Your task to perform on an android device: see creations saved in the google photos Image 0: 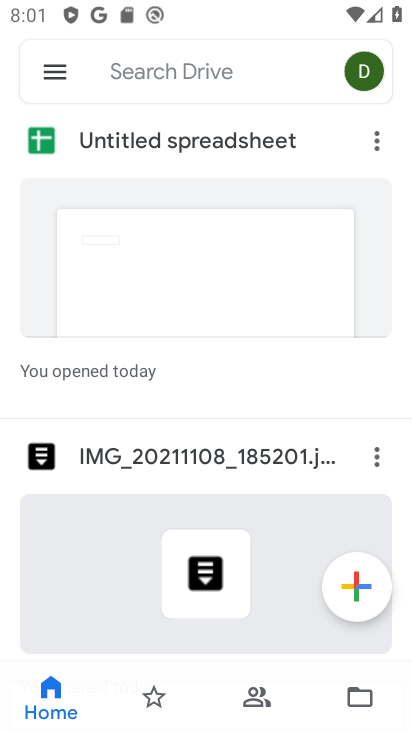
Step 0: press home button
Your task to perform on an android device: see creations saved in the google photos Image 1: 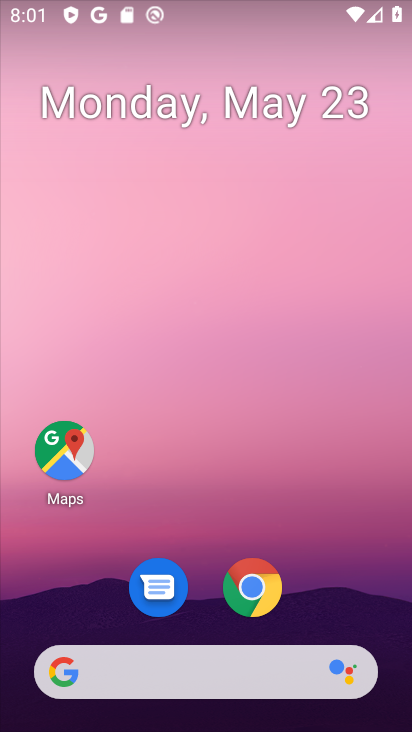
Step 1: drag from (190, 633) to (256, 13)
Your task to perform on an android device: see creations saved in the google photos Image 2: 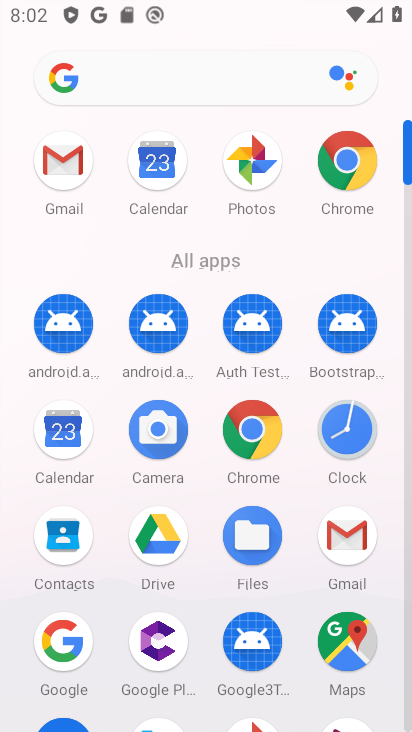
Step 2: drag from (167, 667) to (233, 332)
Your task to perform on an android device: see creations saved in the google photos Image 3: 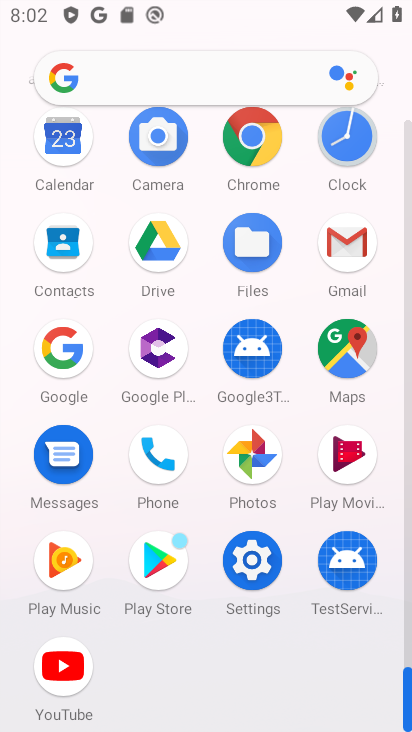
Step 3: click (260, 448)
Your task to perform on an android device: see creations saved in the google photos Image 4: 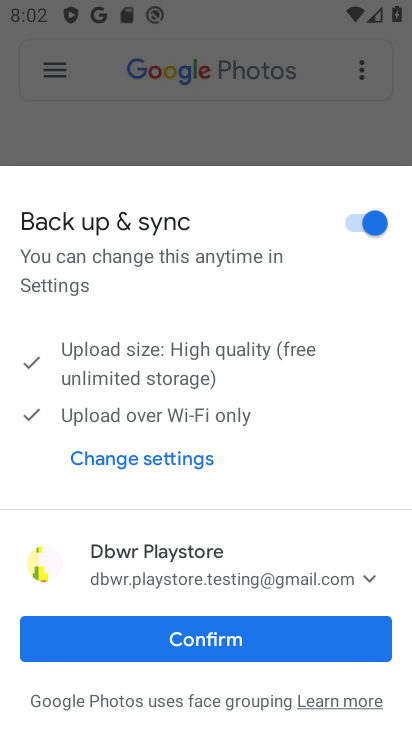
Step 4: click (209, 658)
Your task to perform on an android device: see creations saved in the google photos Image 5: 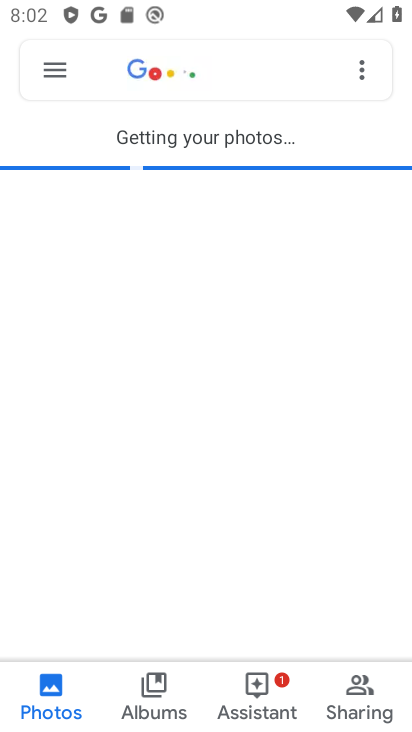
Step 5: click (56, 62)
Your task to perform on an android device: see creations saved in the google photos Image 6: 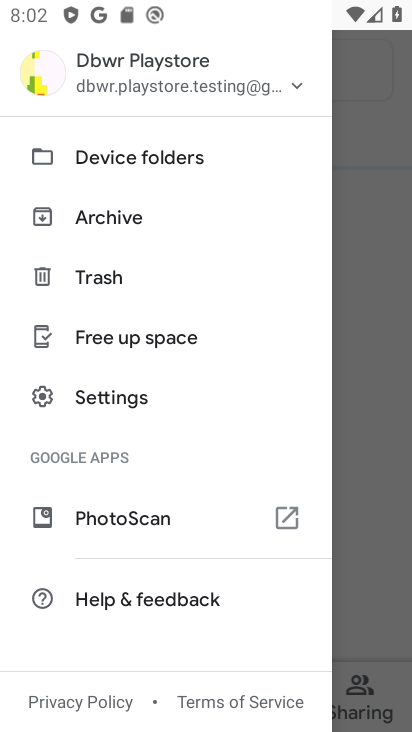
Step 6: click (114, 215)
Your task to perform on an android device: see creations saved in the google photos Image 7: 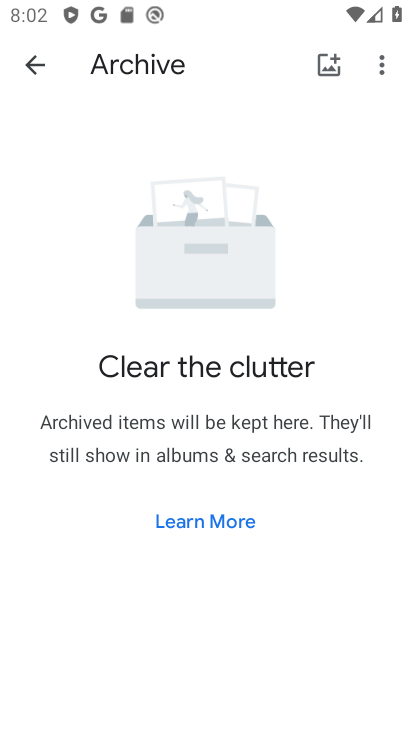
Step 7: task complete